Your task to perform on an android device: Go to display settings Image 0: 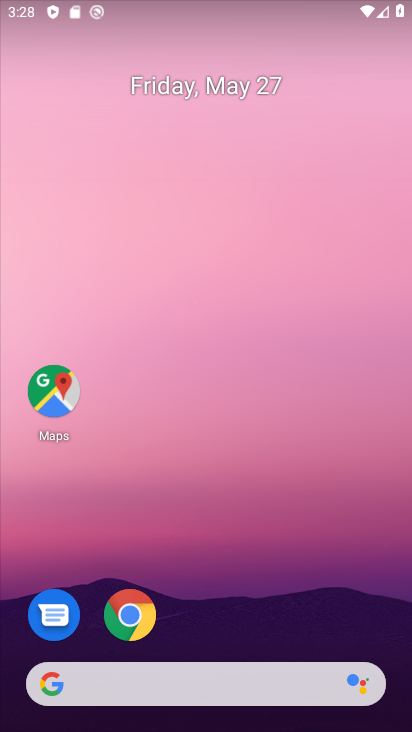
Step 0: drag from (121, 726) to (91, 0)
Your task to perform on an android device: Go to display settings Image 1: 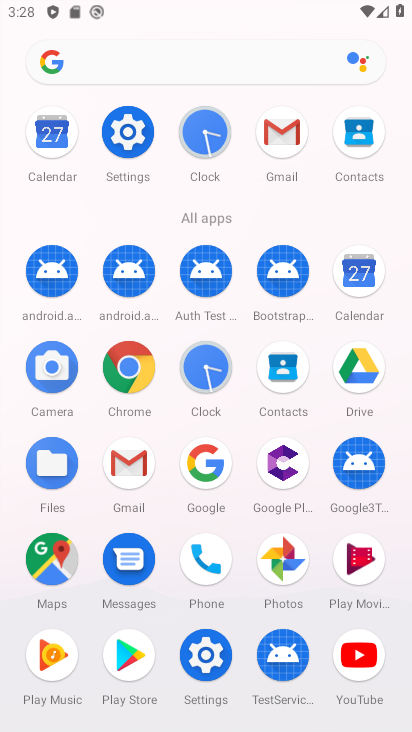
Step 1: click (142, 147)
Your task to perform on an android device: Go to display settings Image 2: 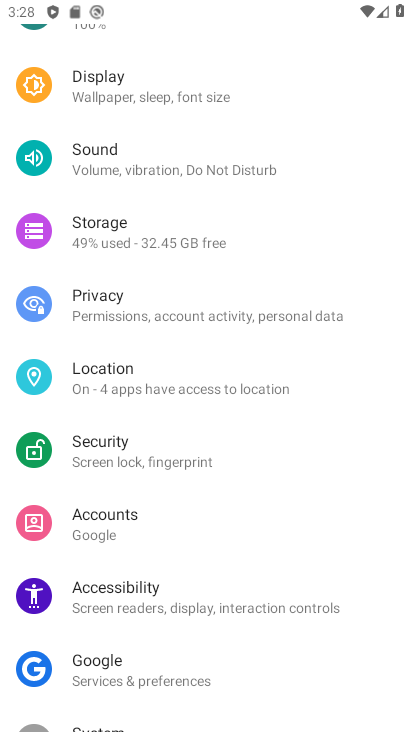
Step 2: click (108, 97)
Your task to perform on an android device: Go to display settings Image 3: 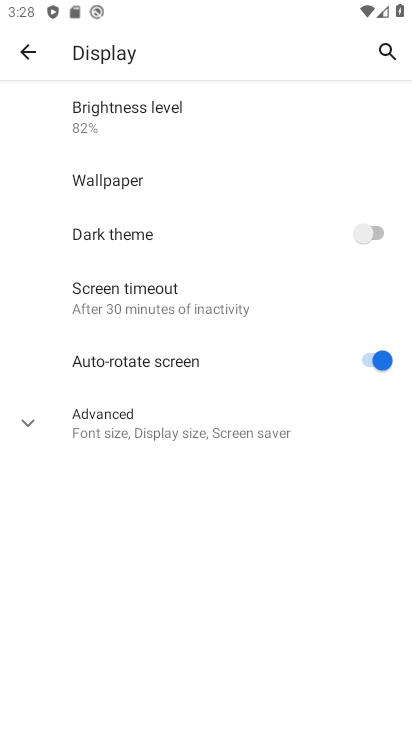
Step 3: task complete